Your task to perform on an android device: change the clock style Image 0: 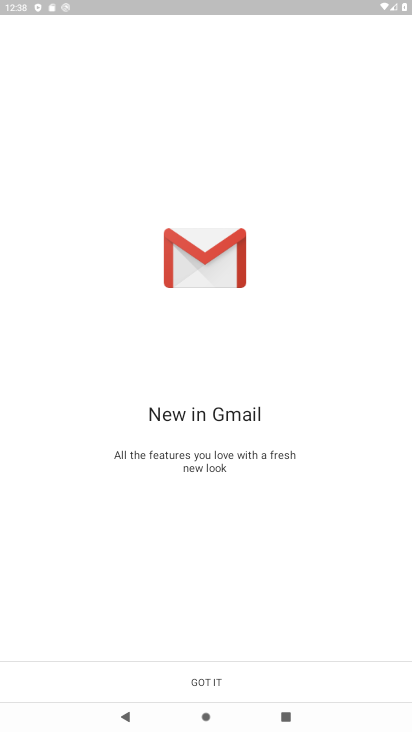
Step 0: press home button
Your task to perform on an android device: change the clock style Image 1: 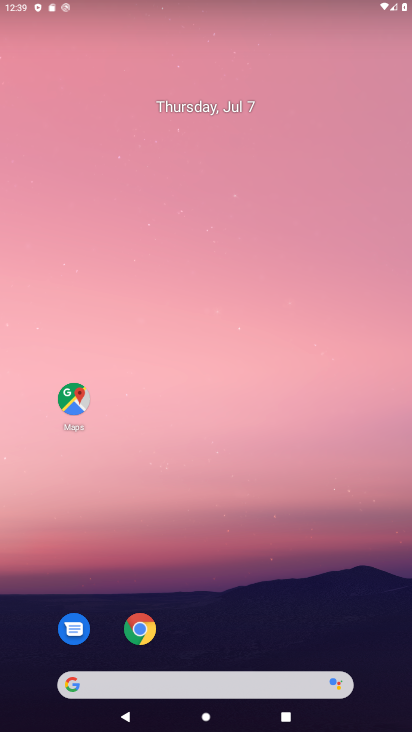
Step 1: drag from (206, 638) to (247, 137)
Your task to perform on an android device: change the clock style Image 2: 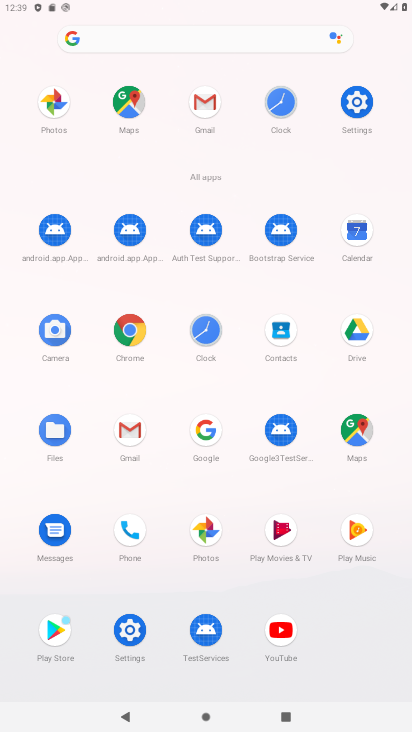
Step 2: click (208, 327)
Your task to perform on an android device: change the clock style Image 3: 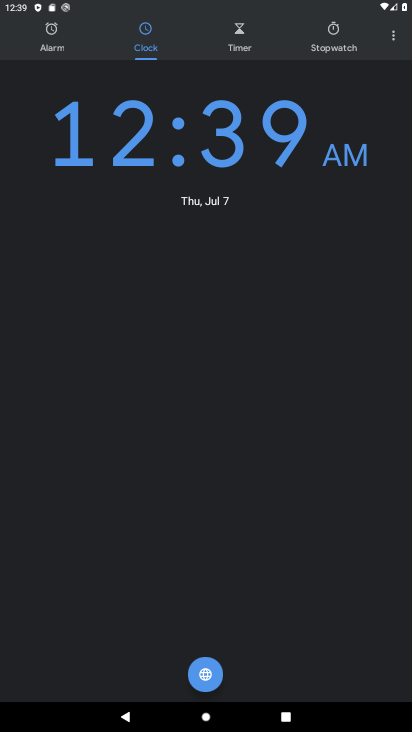
Step 3: click (389, 36)
Your task to perform on an android device: change the clock style Image 4: 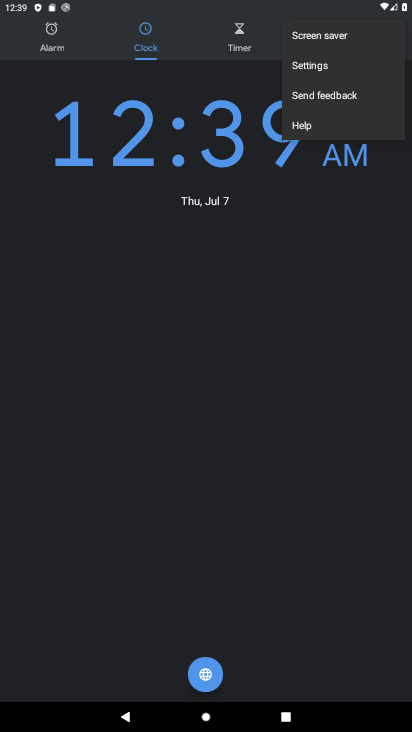
Step 4: click (316, 58)
Your task to perform on an android device: change the clock style Image 5: 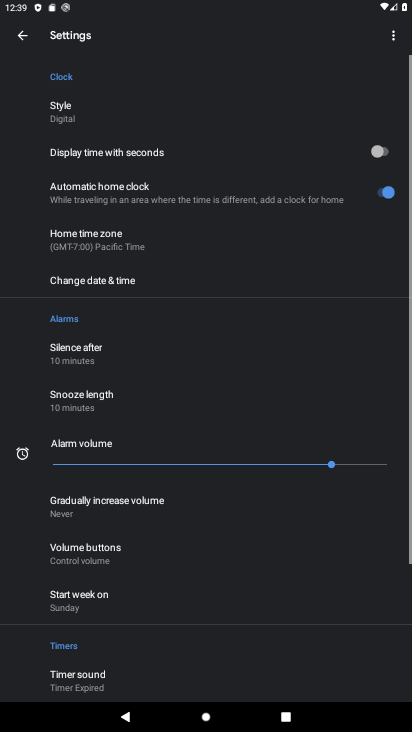
Step 5: click (77, 103)
Your task to perform on an android device: change the clock style Image 6: 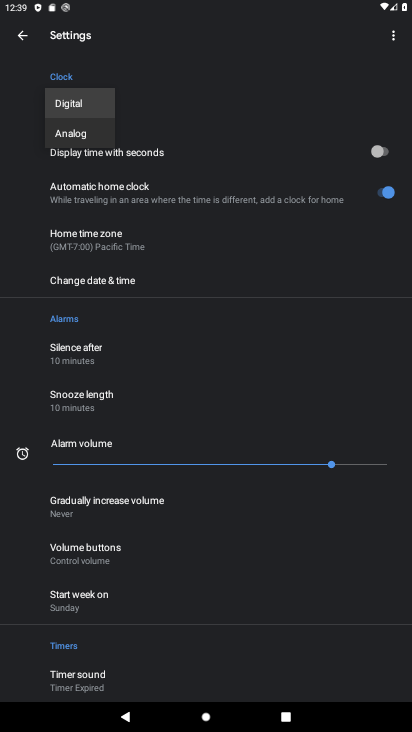
Step 6: click (73, 124)
Your task to perform on an android device: change the clock style Image 7: 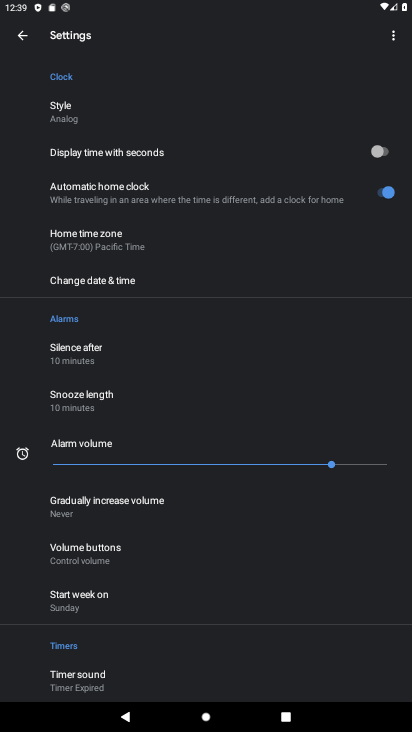
Step 7: task complete